Your task to perform on an android device: Go to Google Image 0: 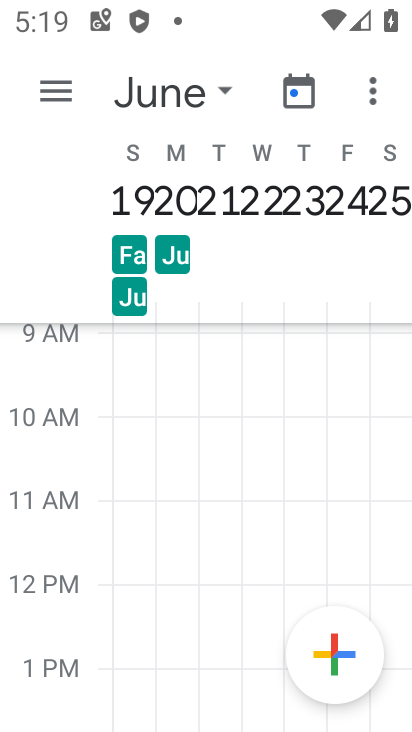
Step 0: press home button
Your task to perform on an android device: Go to Google Image 1: 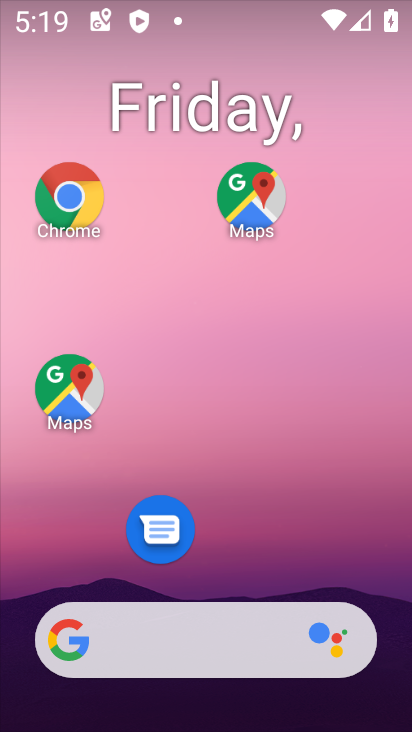
Step 1: click (195, 641)
Your task to perform on an android device: Go to Google Image 2: 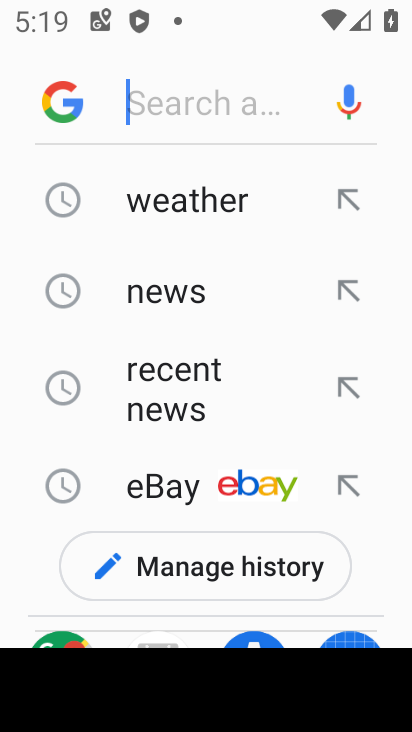
Step 2: task complete